Your task to perform on an android device: turn on translation in the chrome app Image 0: 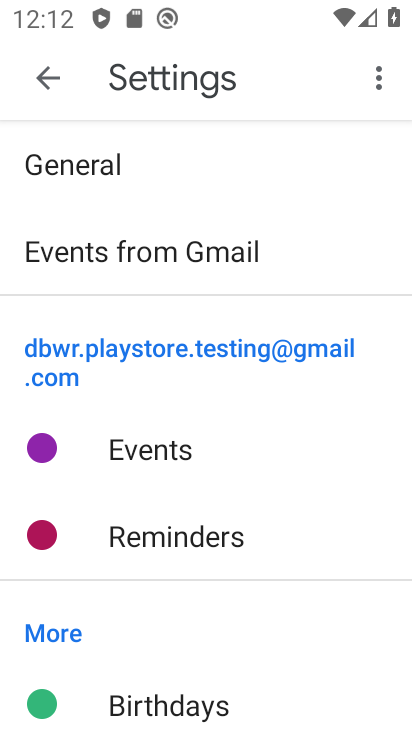
Step 0: press home button
Your task to perform on an android device: turn on translation in the chrome app Image 1: 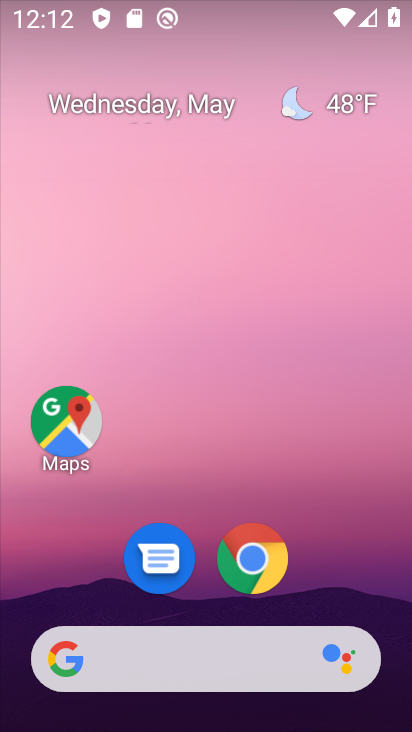
Step 1: drag from (353, 577) to (358, 114)
Your task to perform on an android device: turn on translation in the chrome app Image 2: 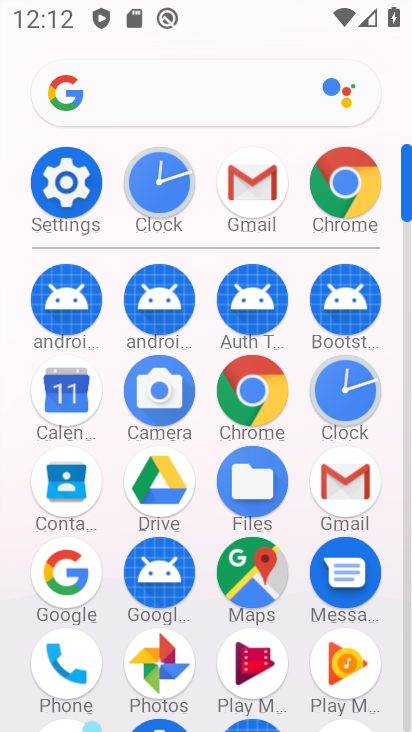
Step 2: click (334, 193)
Your task to perform on an android device: turn on translation in the chrome app Image 3: 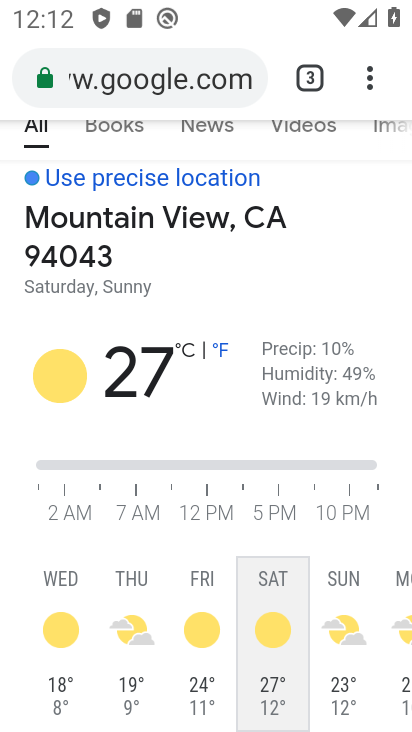
Step 3: drag from (371, 88) to (154, 618)
Your task to perform on an android device: turn on translation in the chrome app Image 4: 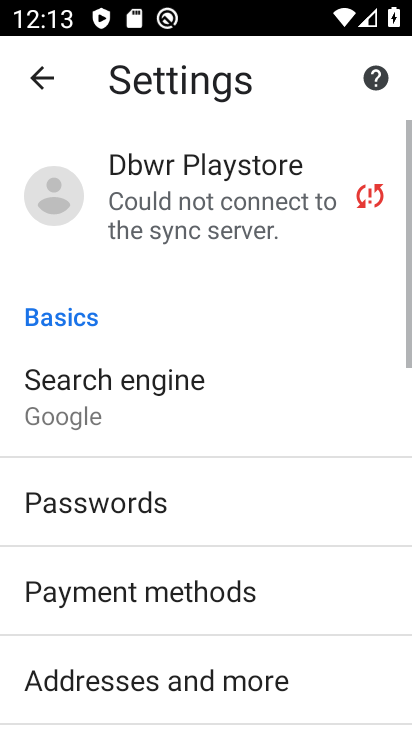
Step 4: drag from (288, 651) to (297, 220)
Your task to perform on an android device: turn on translation in the chrome app Image 5: 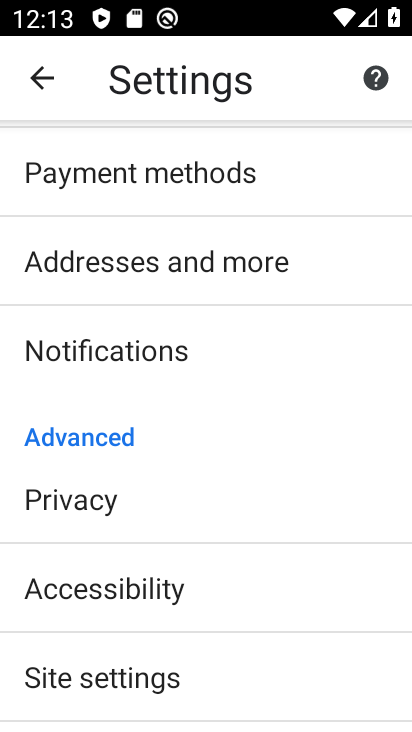
Step 5: drag from (287, 596) to (284, 258)
Your task to perform on an android device: turn on translation in the chrome app Image 6: 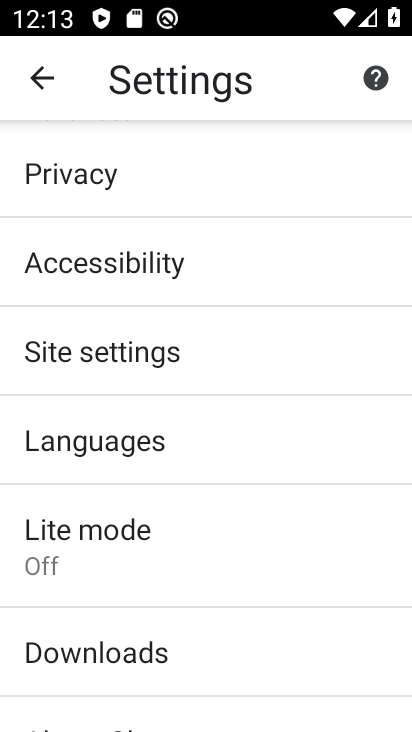
Step 6: drag from (250, 628) to (321, 244)
Your task to perform on an android device: turn on translation in the chrome app Image 7: 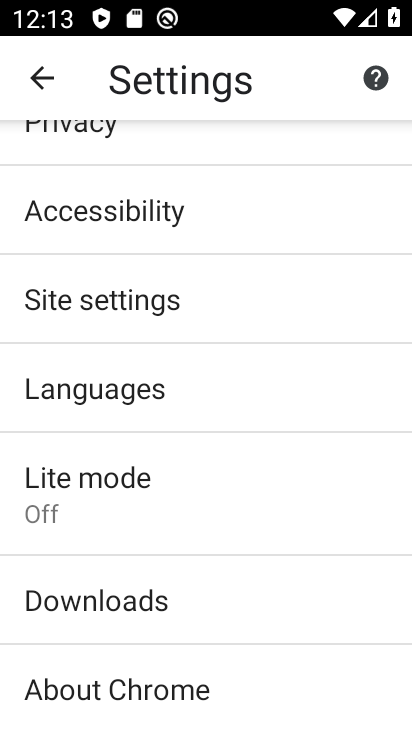
Step 7: click (91, 361)
Your task to perform on an android device: turn on translation in the chrome app Image 8: 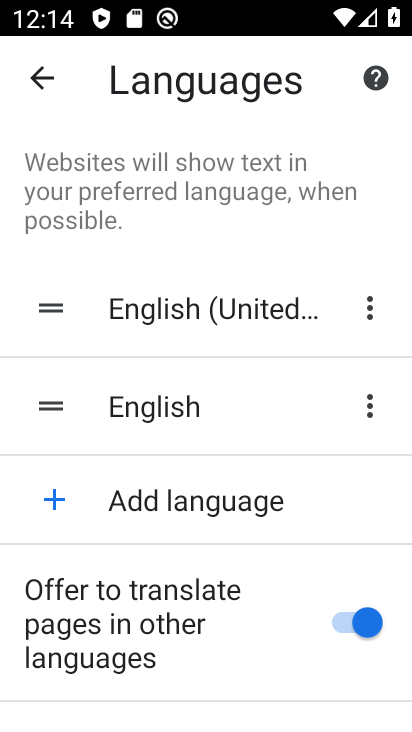
Step 8: task complete